Your task to perform on an android device: Search for the ikea billy bookcase Image 0: 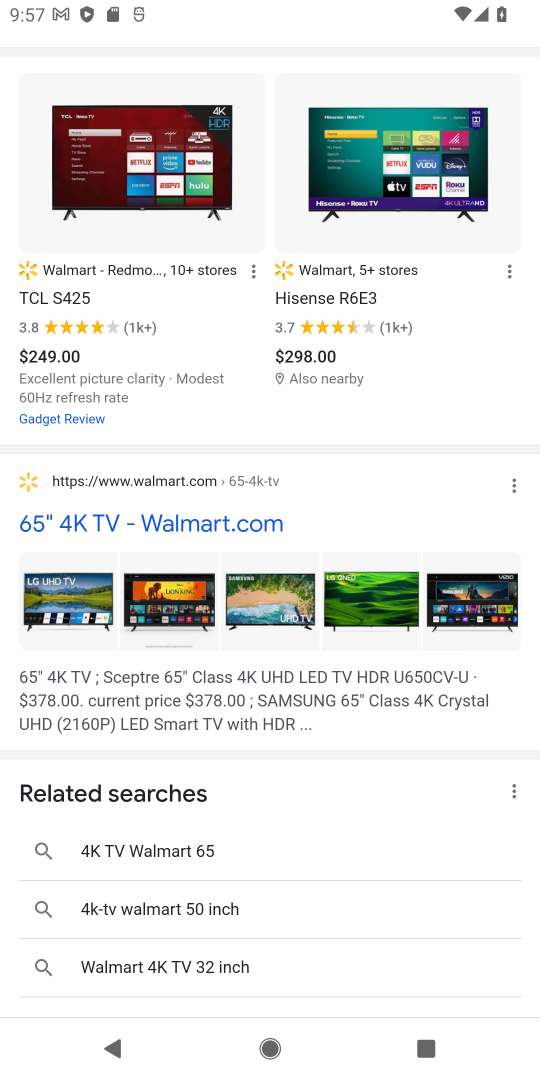
Step 0: press home button
Your task to perform on an android device: Search for the ikea billy bookcase Image 1: 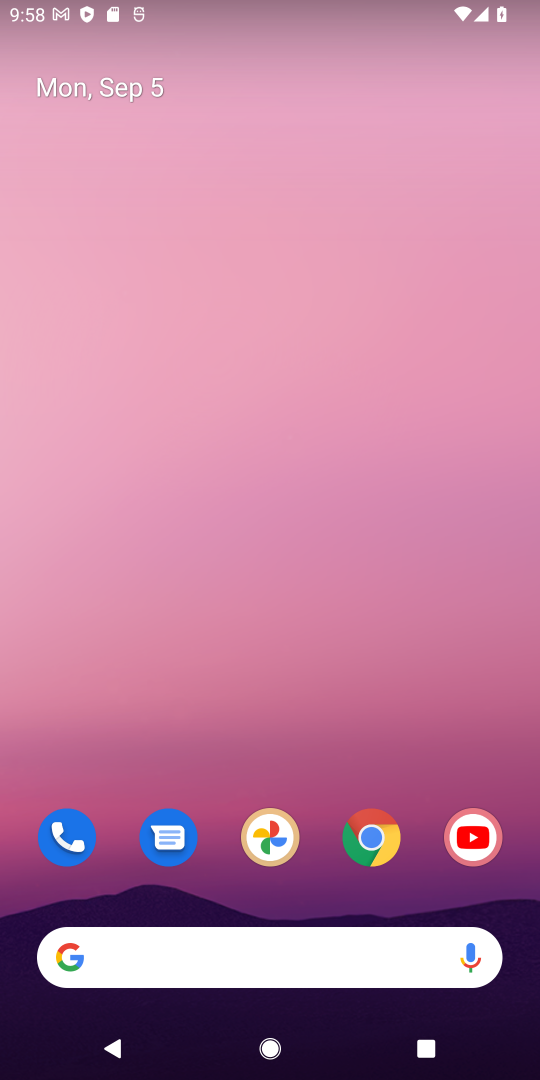
Step 1: drag from (316, 894) to (304, 9)
Your task to perform on an android device: Search for the ikea billy bookcase Image 2: 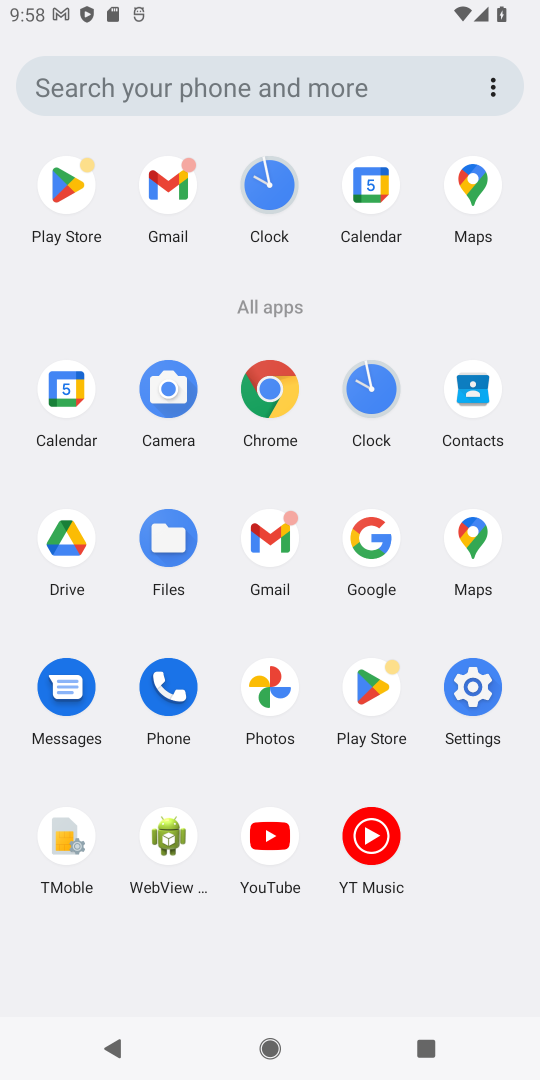
Step 2: click (288, 391)
Your task to perform on an android device: Search for the ikea billy bookcase Image 3: 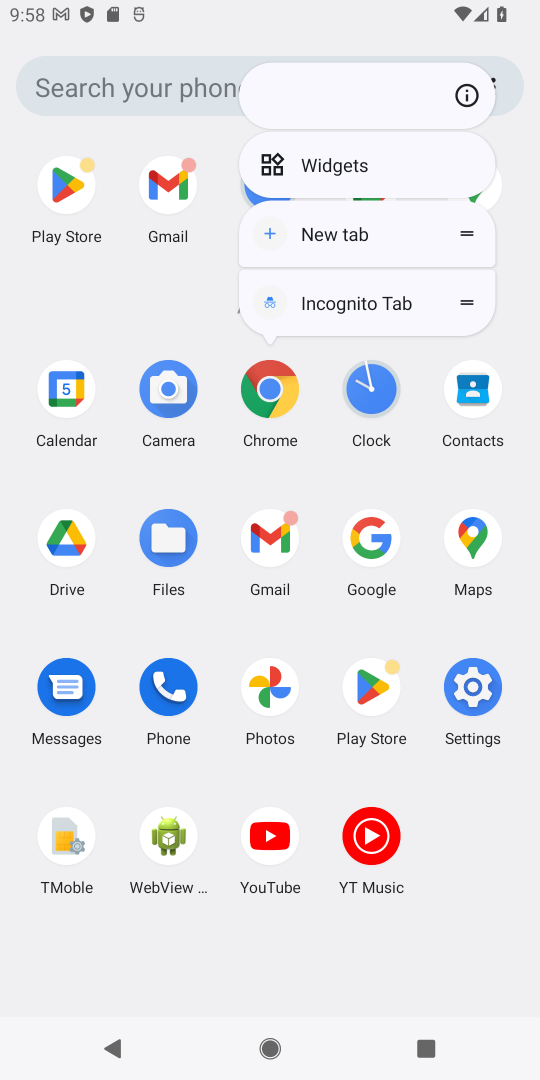
Step 3: click (268, 389)
Your task to perform on an android device: Search for the ikea billy bookcase Image 4: 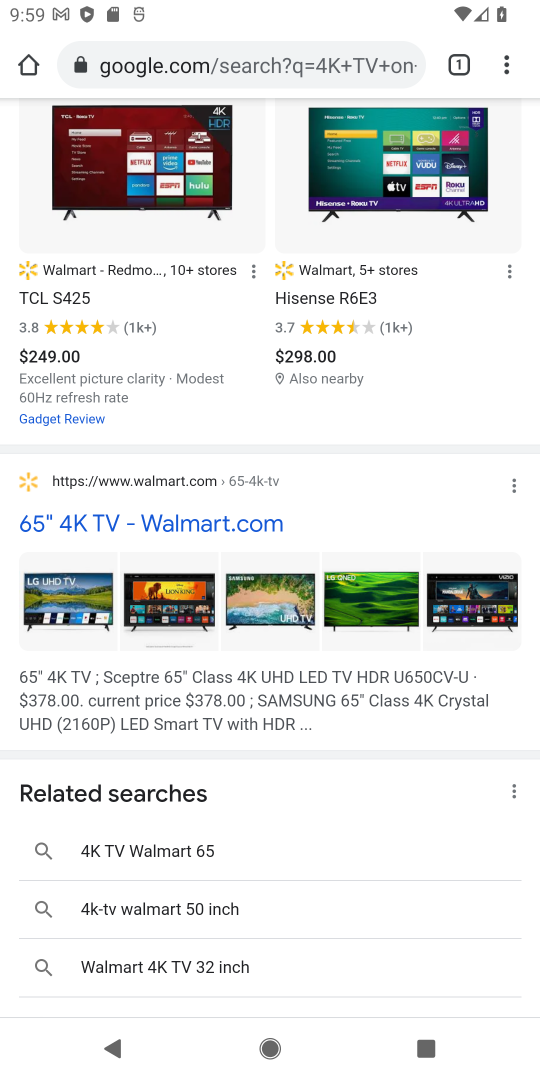
Step 4: click (459, 62)
Your task to perform on an android device: Search for the ikea billy bookcase Image 5: 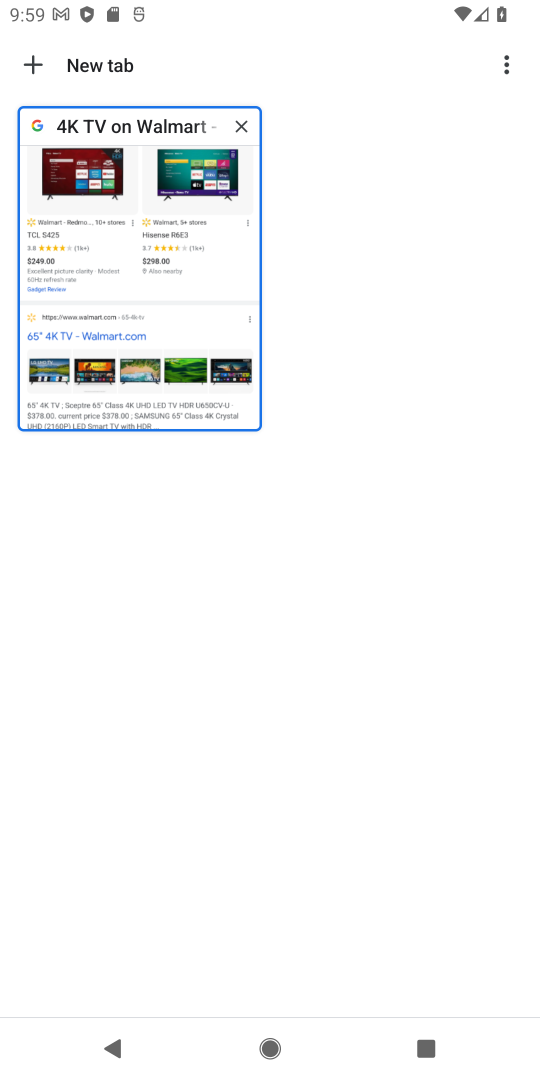
Step 5: click (242, 121)
Your task to perform on an android device: Search for the ikea billy bookcase Image 6: 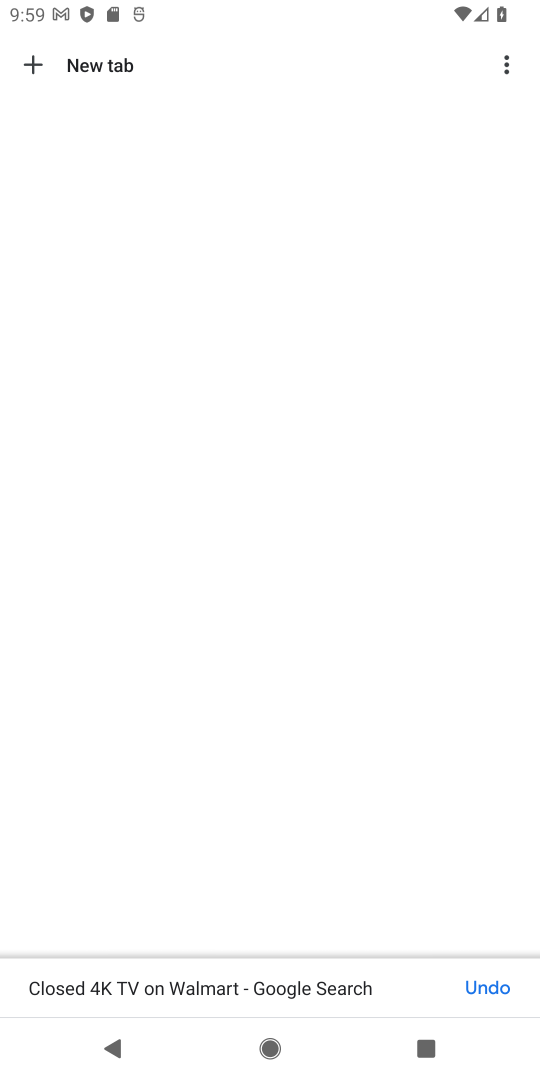
Step 6: click (26, 64)
Your task to perform on an android device: Search for the ikea billy bookcase Image 7: 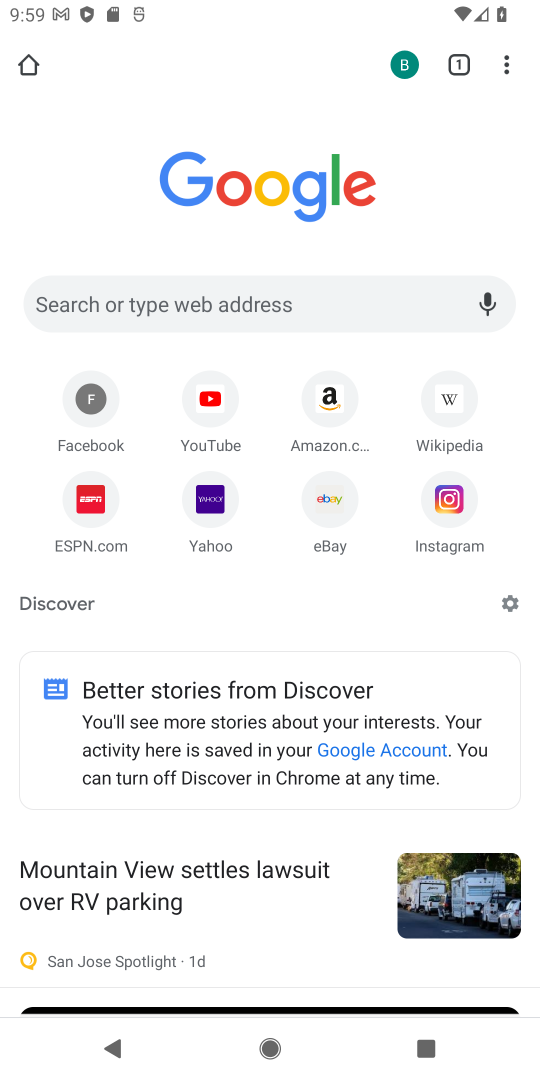
Step 7: click (153, 311)
Your task to perform on an android device: Search for the ikea billy bookcase Image 8: 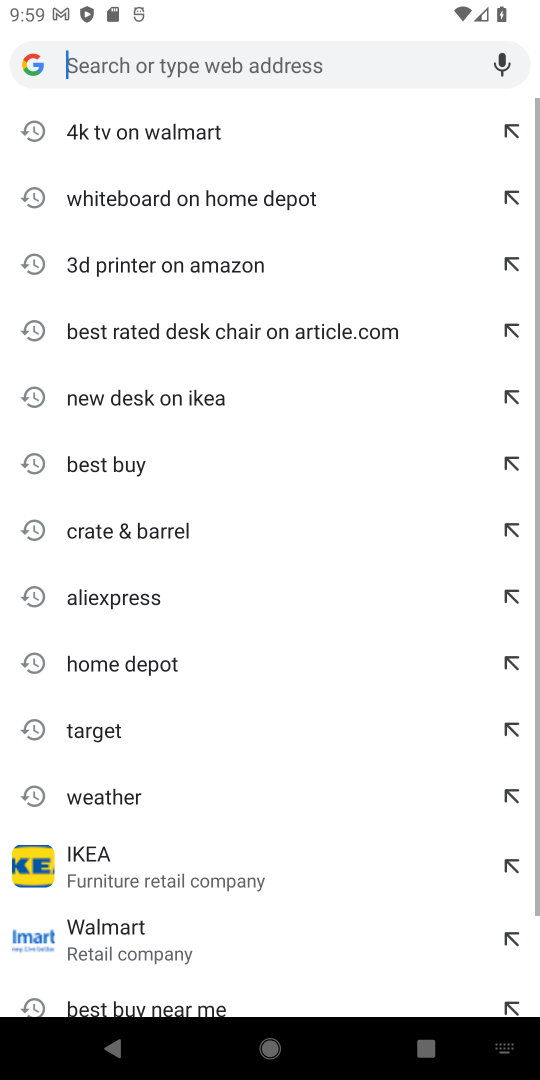
Step 8: type "ikea billy bookcase"
Your task to perform on an android device: Search for the ikea billy bookcase Image 9: 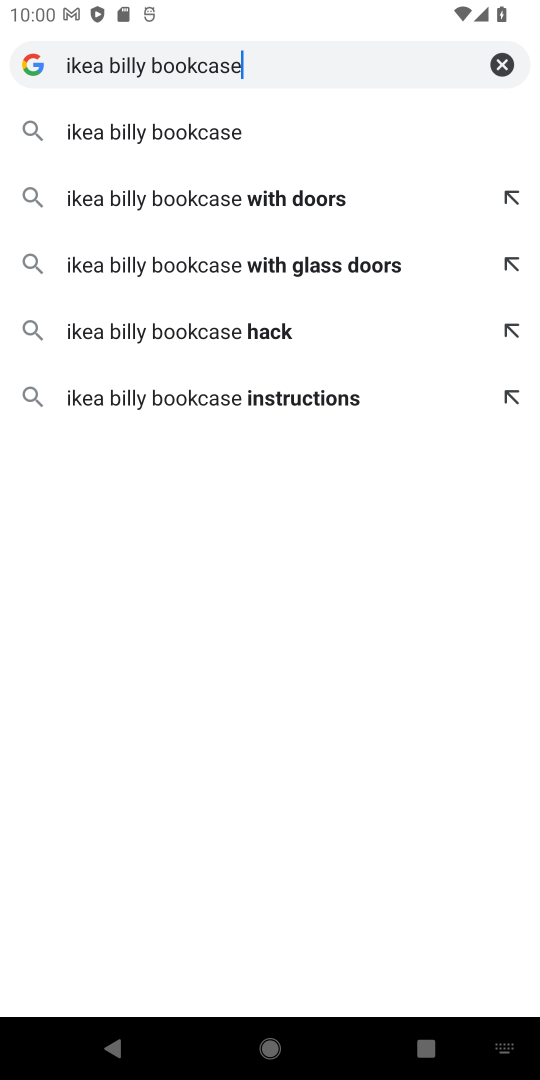
Step 9: click (248, 123)
Your task to perform on an android device: Search for the ikea billy bookcase Image 10: 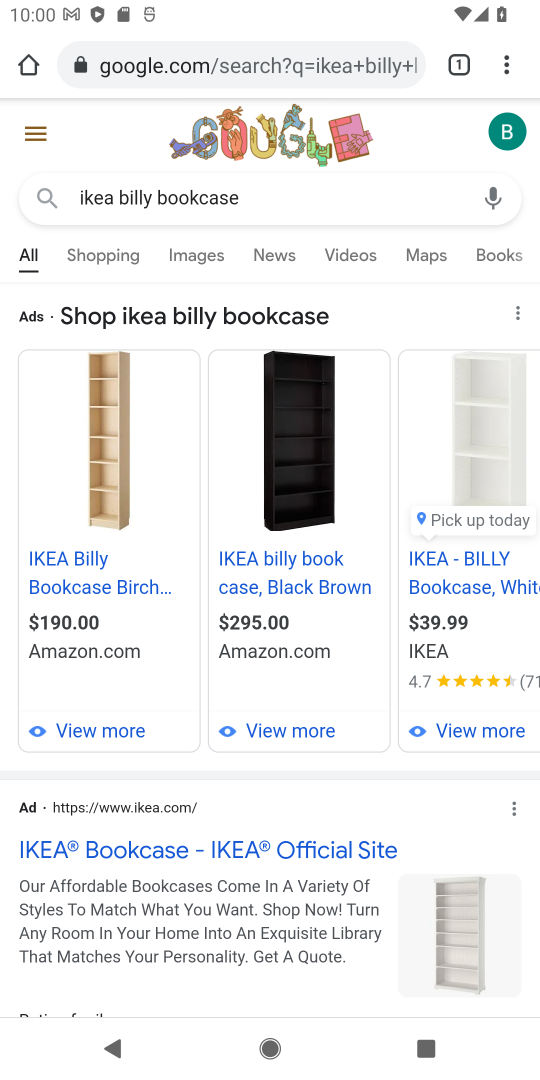
Step 10: click (247, 850)
Your task to perform on an android device: Search for the ikea billy bookcase Image 11: 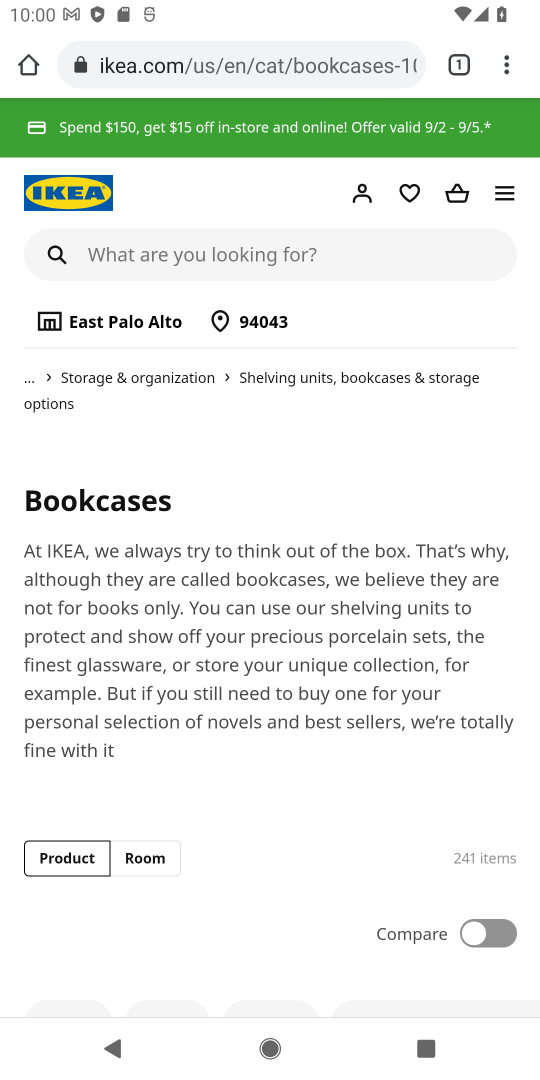
Step 11: task complete